Your task to perform on an android device: set the stopwatch Image 0: 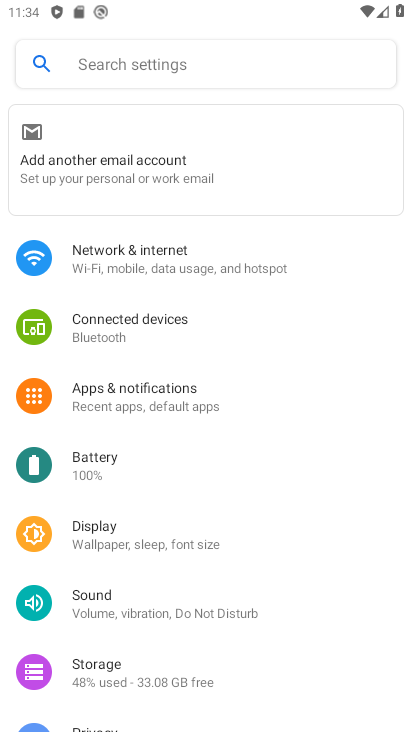
Step 0: press home button
Your task to perform on an android device: set the stopwatch Image 1: 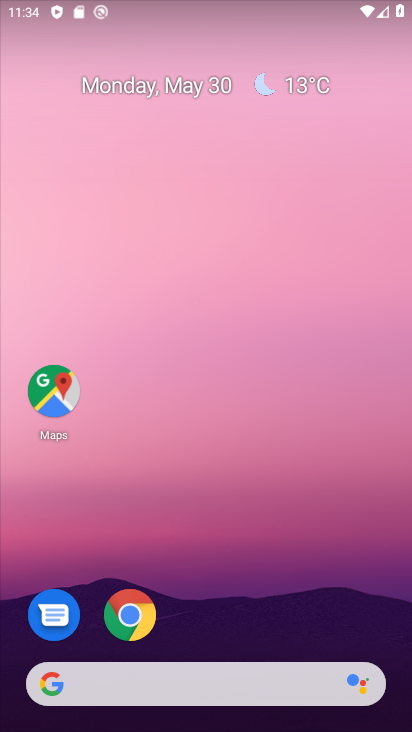
Step 1: drag from (220, 663) to (351, 66)
Your task to perform on an android device: set the stopwatch Image 2: 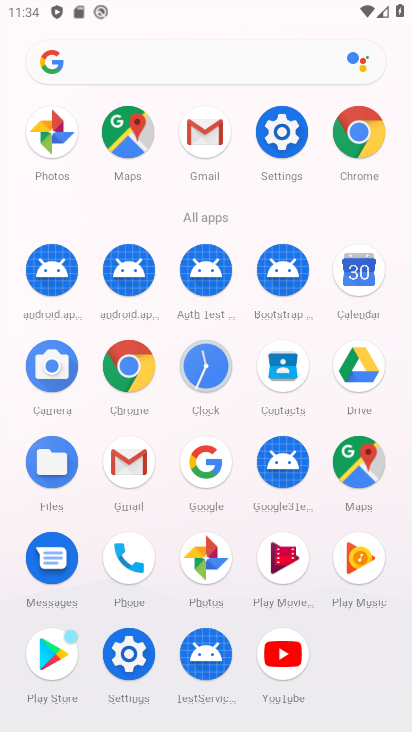
Step 2: click (223, 372)
Your task to perform on an android device: set the stopwatch Image 3: 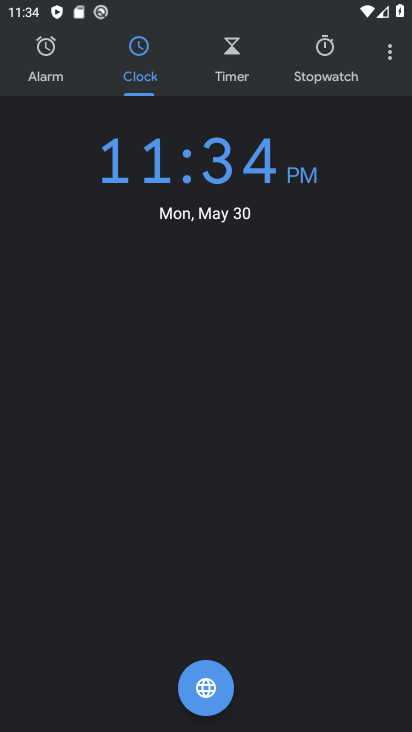
Step 3: click (340, 72)
Your task to perform on an android device: set the stopwatch Image 4: 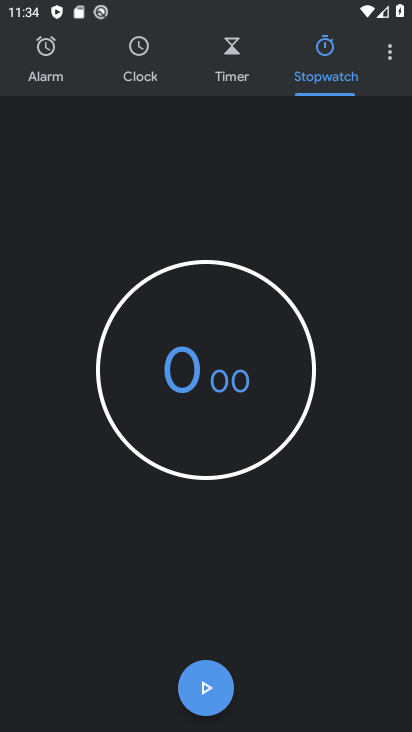
Step 4: click (215, 697)
Your task to perform on an android device: set the stopwatch Image 5: 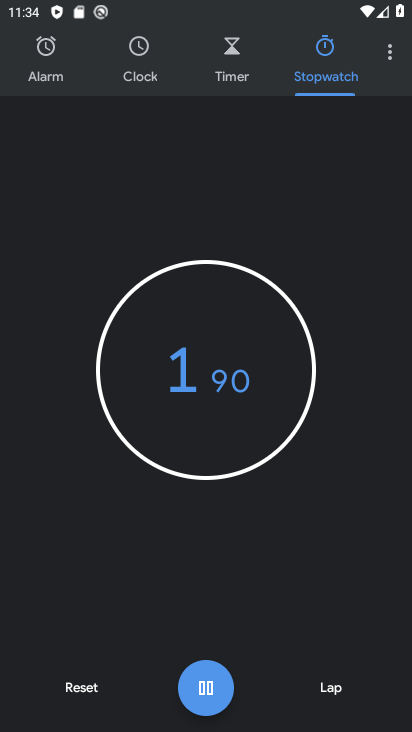
Step 5: task complete